Your task to perform on an android device: Open settings on Google Maps Image 0: 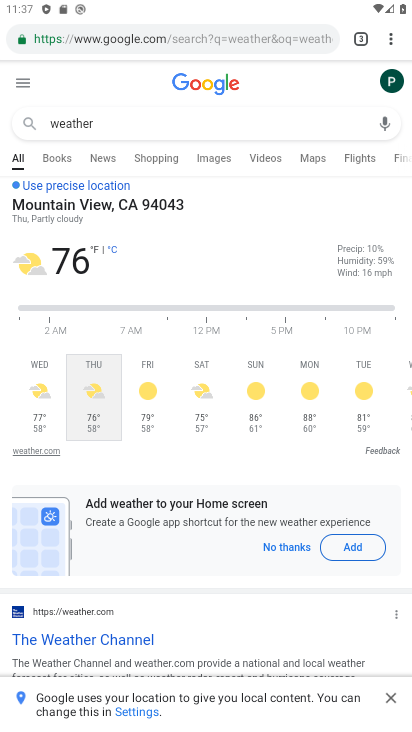
Step 0: press home button
Your task to perform on an android device: Open settings on Google Maps Image 1: 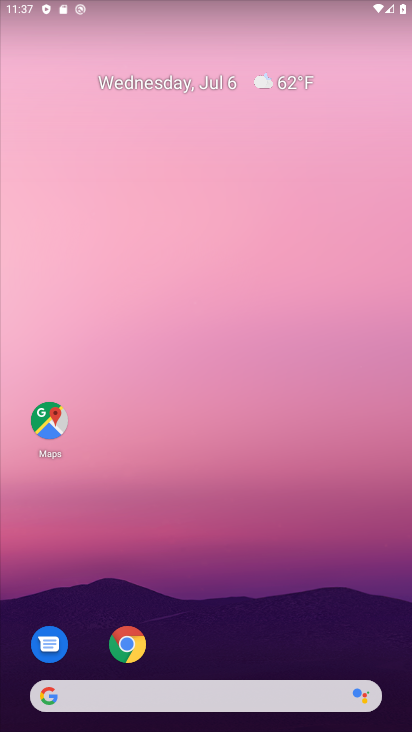
Step 1: drag from (256, 640) to (179, 175)
Your task to perform on an android device: Open settings on Google Maps Image 2: 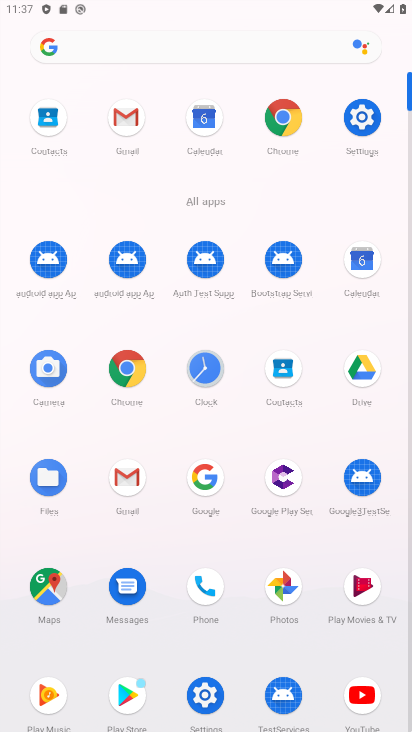
Step 2: click (56, 584)
Your task to perform on an android device: Open settings on Google Maps Image 3: 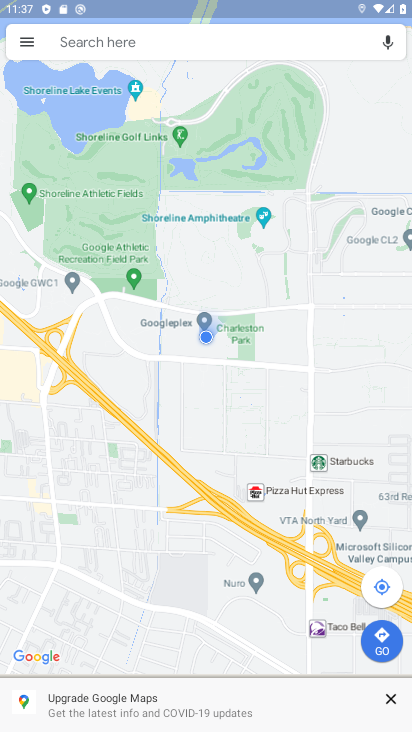
Step 3: click (33, 38)
Your task to perform on an android device: Open settings on Google Maps Image 4: 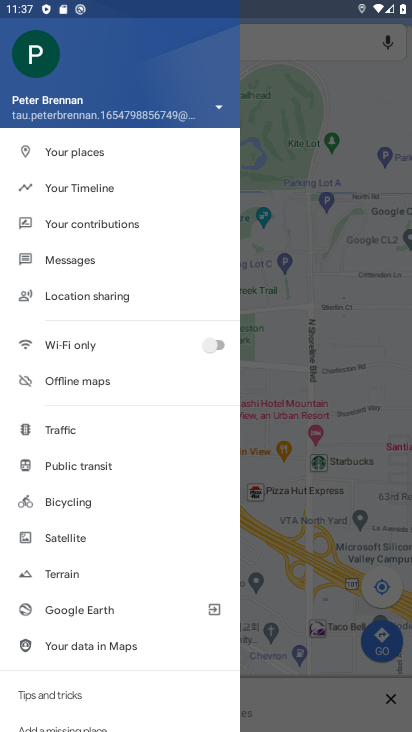
Step 4: drag from (81, 662) to (81, 264)
Your task to perform on an android device: Open settings on Google Maps Image 5: 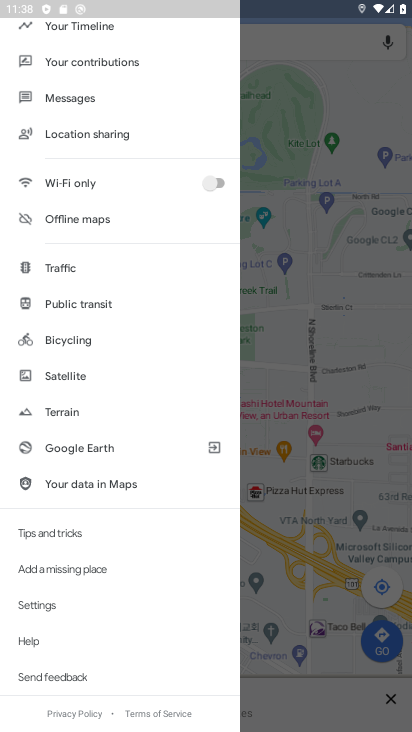
Step 5: click (50, 599)
Your task to perform on an android device: Open settings on Google Maps Image 6: 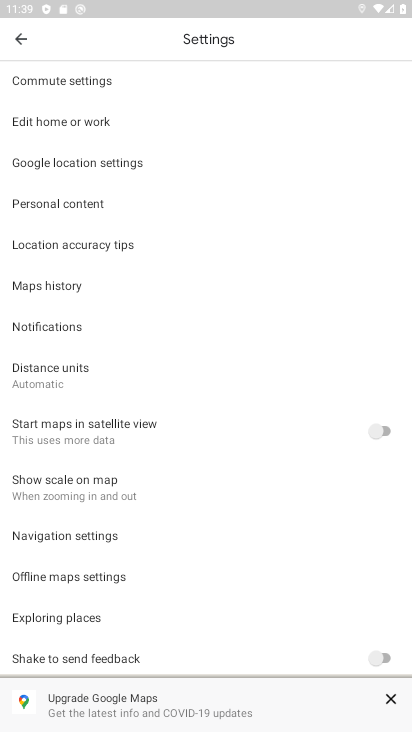
Step 6: task complete